Your task to perform on an android device: Turn off the flashlight Image 0: 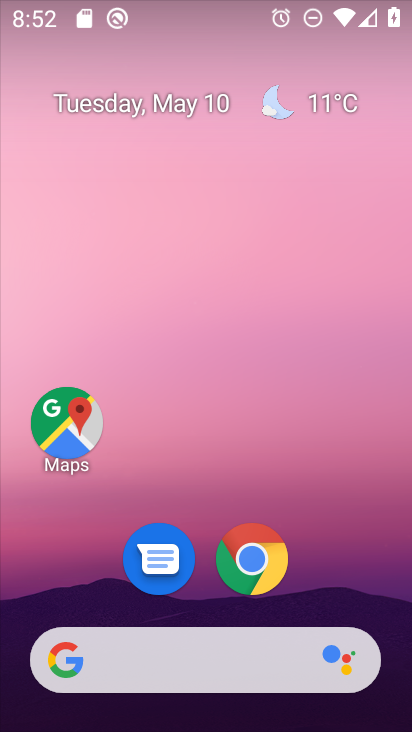
Step 0: drag from (225, 722) to (229, 106)
Your task to perform on an android device: Turn off the flashlight Image 1: 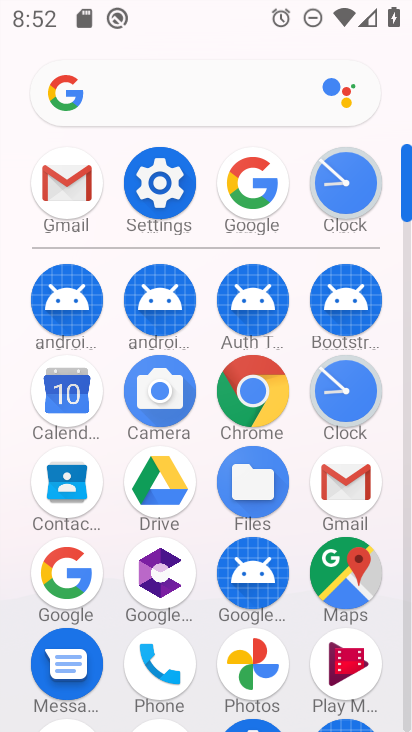
Step 1: click (160, 174)
Your task to perform on an android device: Turn off the flashlight Image 2: 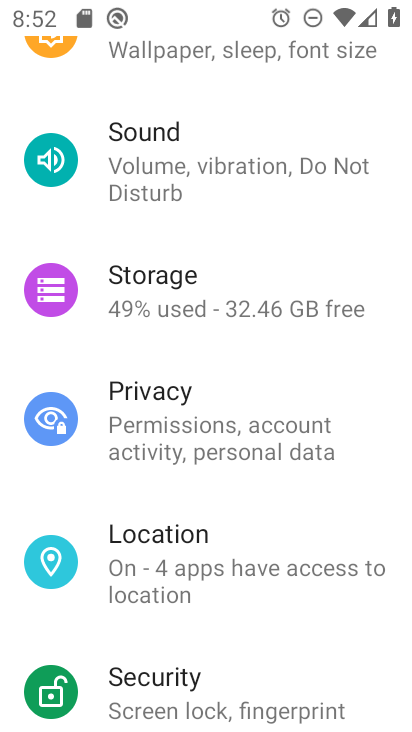
Step 2: task complete